Your task to perform on an android device: open chrome privacy settings Image 0: 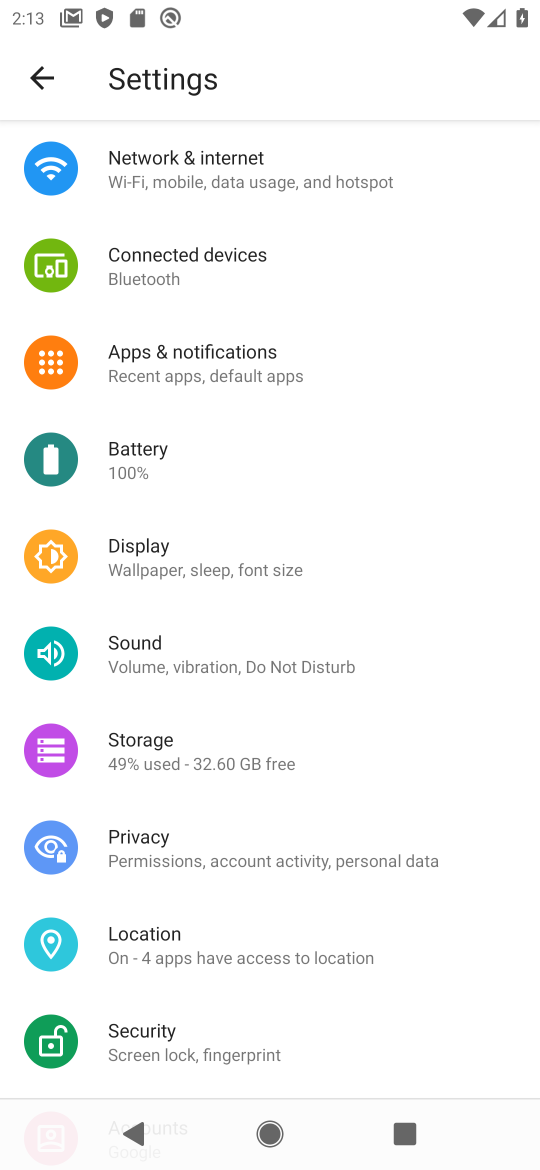
Step 0: press home button
Your task to perform on an android device: open chrome privacy settings Image 1: 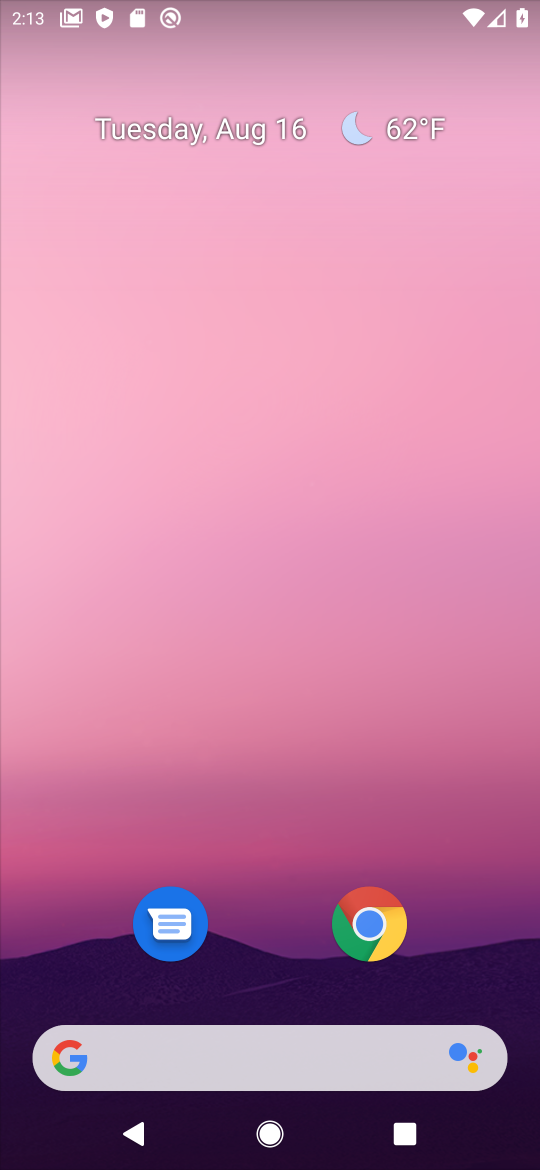
Step 1: click (368, 923)
Your task to perform on an android device: open chrome privacy settings Image 2: 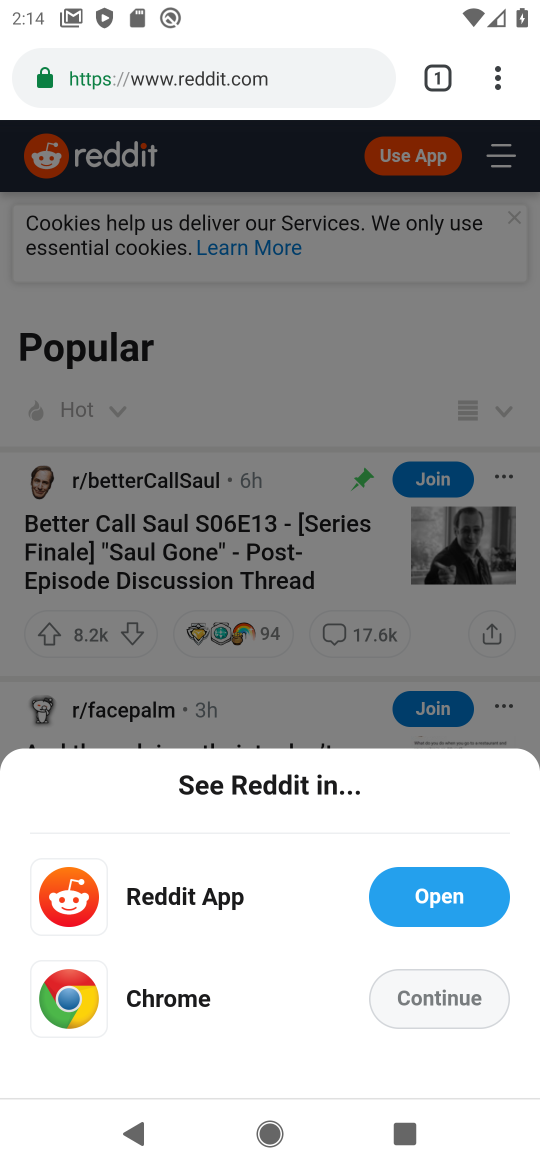
Step 2: click (491, 84)
Your task to perform on an android device: open chrome privacy settings Image 3: 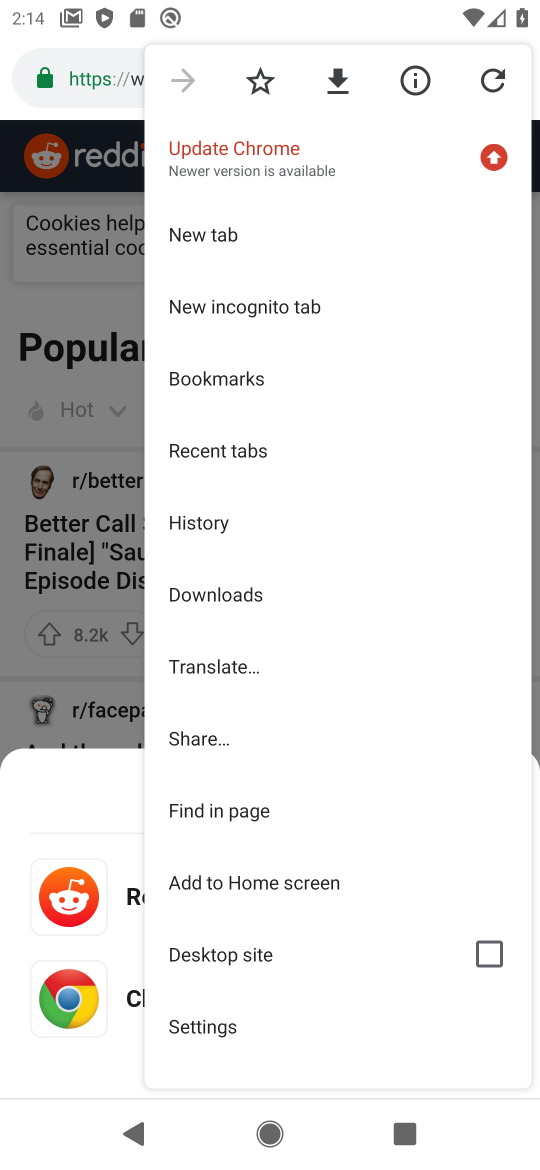
Step 3: click (207, 1016)
Your task to perform on an android device: open chrome privacy settings Image 4: 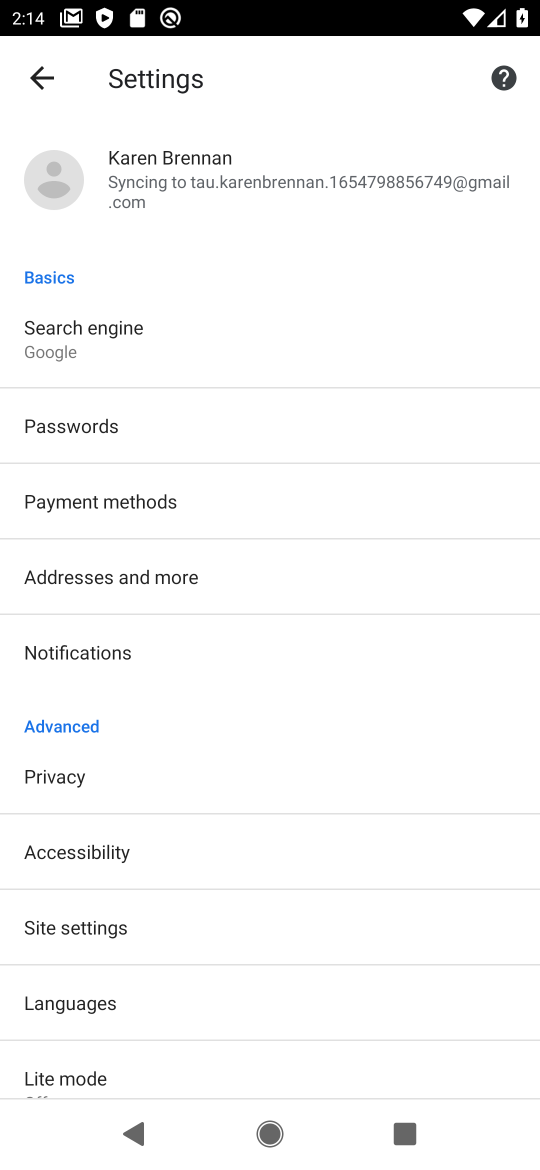
Step 4: click (47, 769)
Your task to perform on an android device: open chrome privacy settings Image 5: 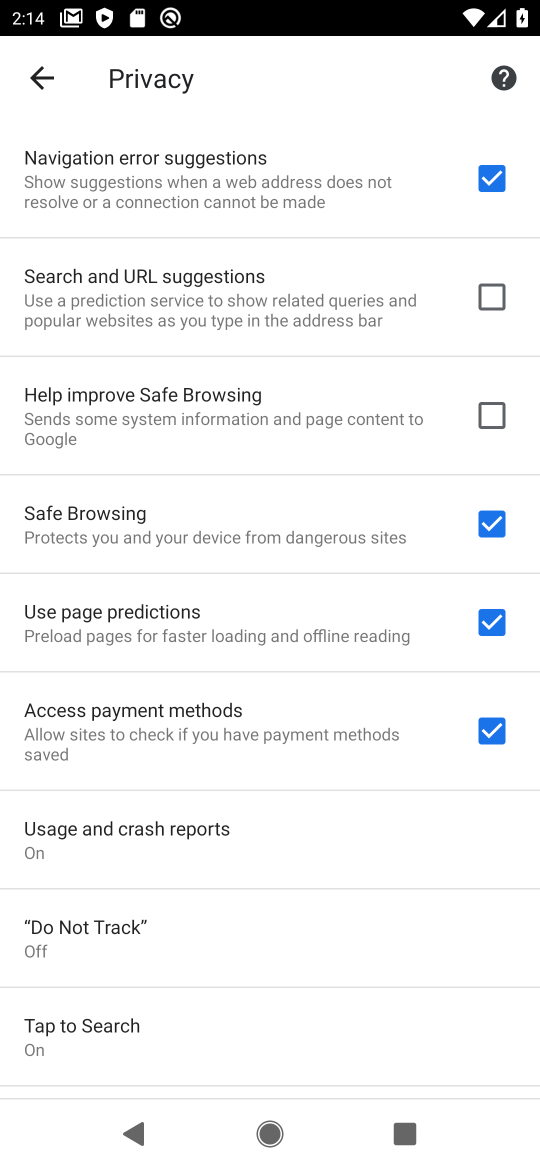
Step 5: task complete